Your task to perform on an android device: Show me popular games on the Play Store Image 0: 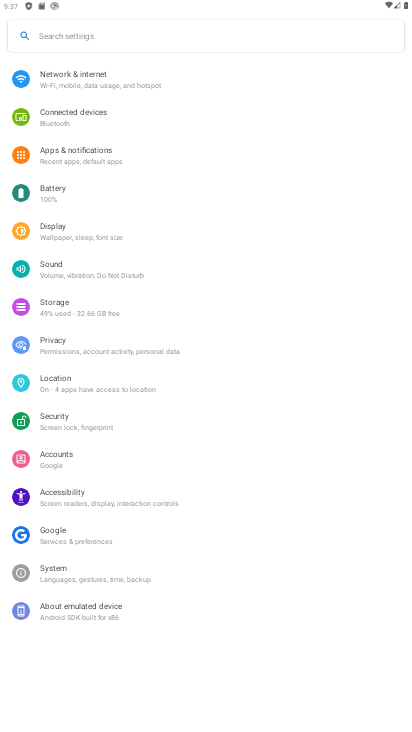
Step 0: drag from (236, 691) to (227, 516)
Your task to perform on an android device: Show me popular games on the Play Store Image 1: 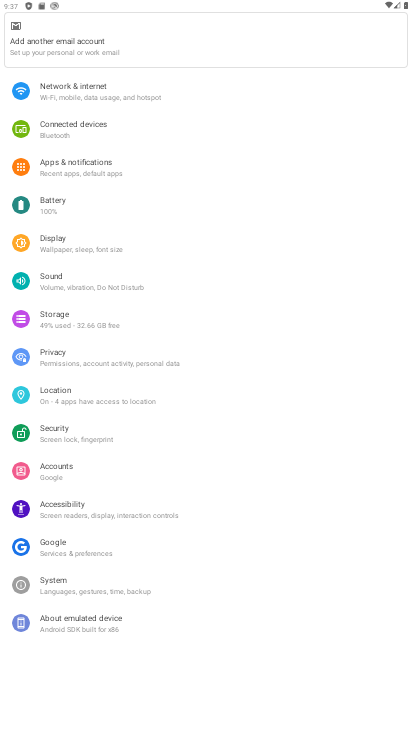
Step 1: press home button
Your task to perform on an android device: Show me popular games on the Play Store Image 2: 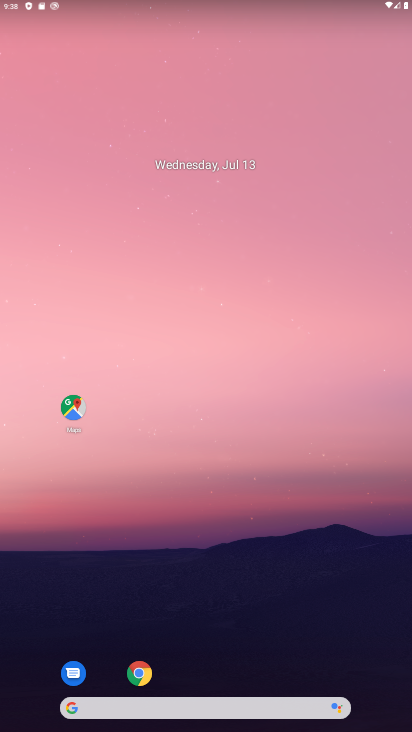
Step 2: drag from (217, 701) to (239, 350)
Your task to perform on an android device: Show me popular games on the Play Store Image 3: 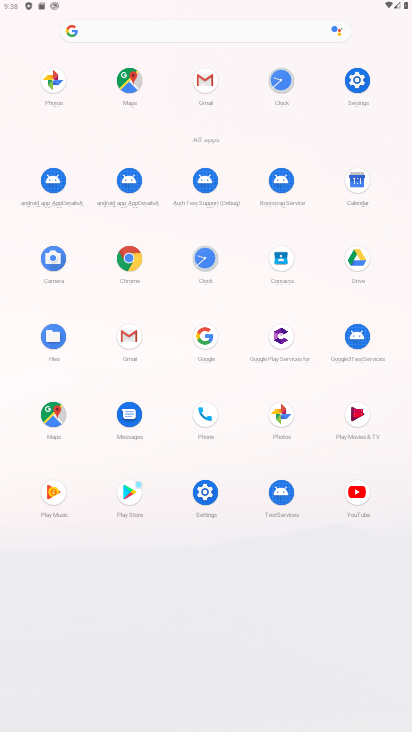
Step 3: click (128, 496)
Your task to perform on an android device: Show me popular games on the Play Store Image 4: 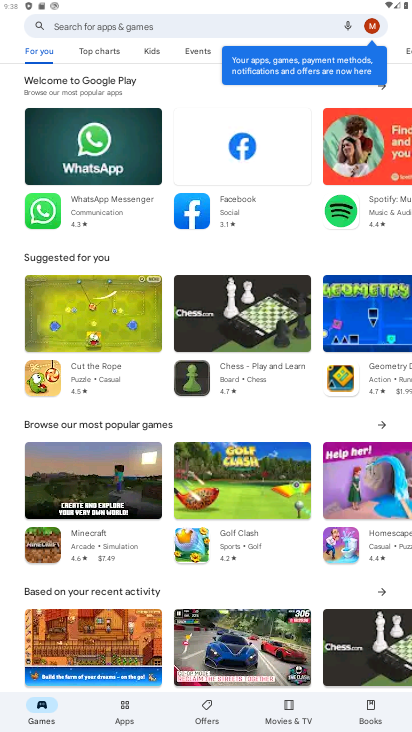
Step 4: click (126, 28)
Your task to perform on an android device: Show me popular games on the Play Store Image 5: 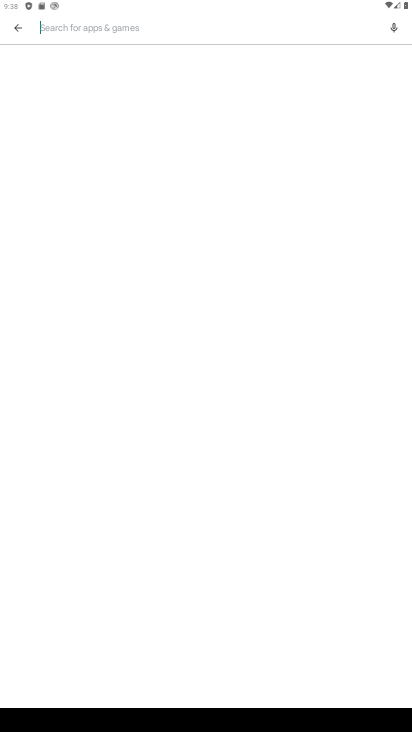
Step 5: type "popular games"
Your task to perform on an android device: Show me popular games on the Play Store Image 6: 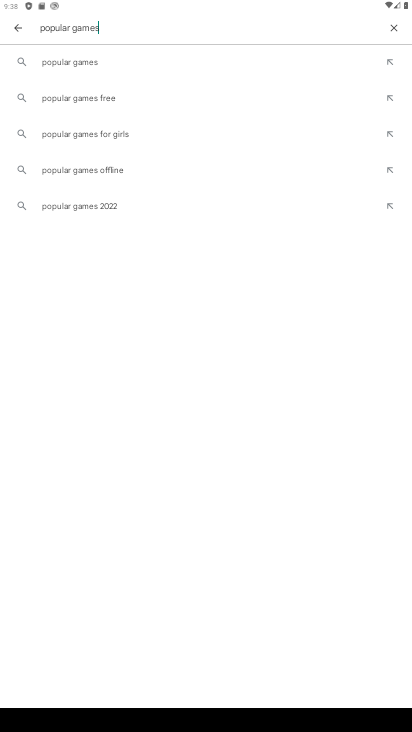
Step 6: click (74, 60)
Your task to perform on an android device: Show me popular games on the Play Store Image 7: 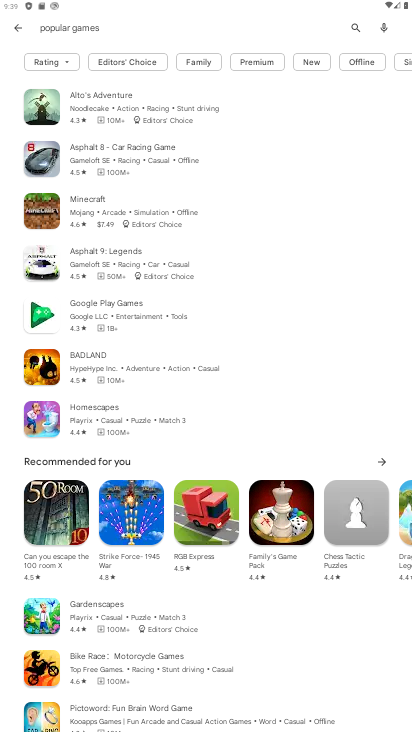
Step 7: task complete